Your task to perform on an android device: change notification settings in the gmail app Image 0: 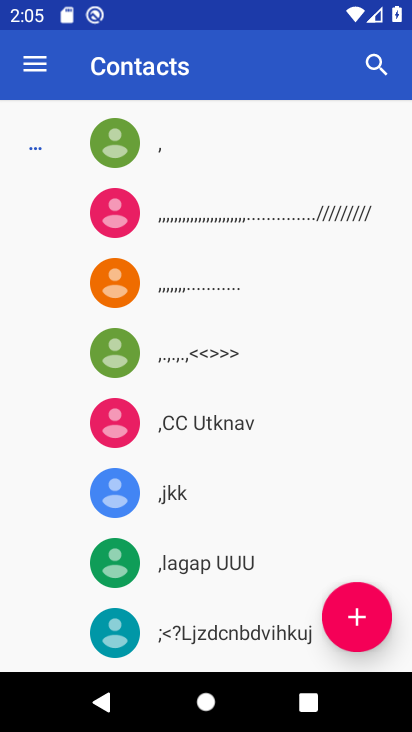
Step 0: press home button
Your task to perform on an android device: change notification settings in the gmail app Image 1: 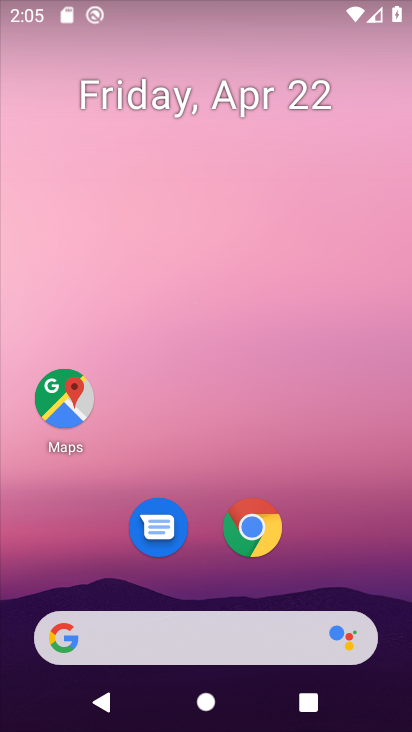
Step 1: drag from (359, 597) to (251, 35)
Your task to perform on an android device: change notification settings in the gmail app Image 2: 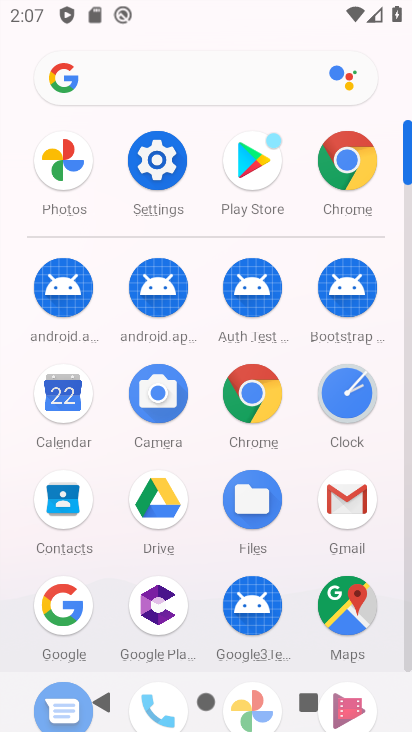
Step 2: click (352, 500)
Your task to perform on an android device: change notification settings in the gmail app Image 3: 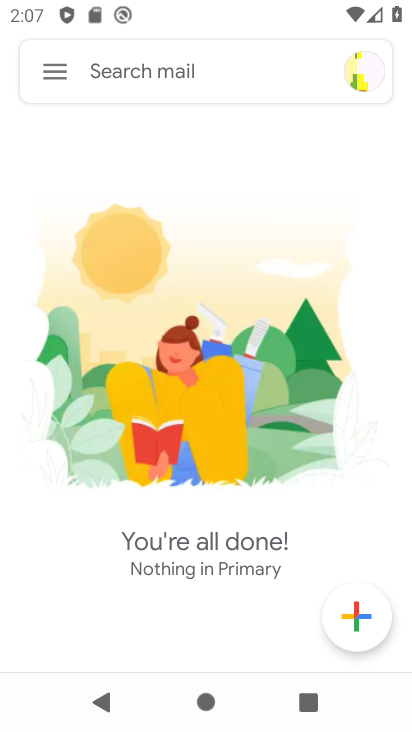
Step 3: click (49, 68)
Your task to perform on an android device: change notification settings in the gmail app Image 4: 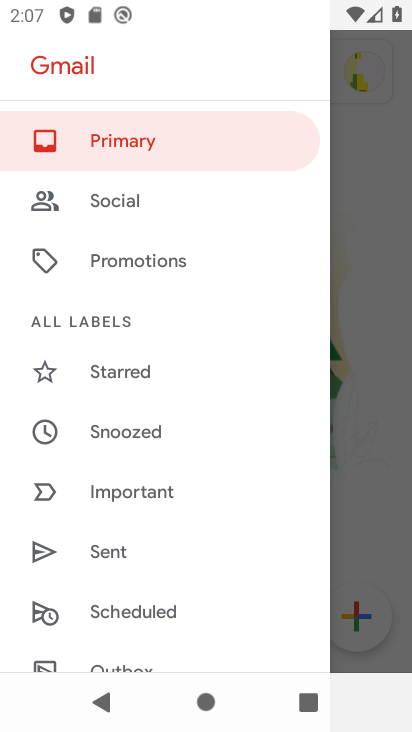
Step 4: drag from (140, 623) to (233, 147)
Your task to perform on an android device: change notification settings in the gmail app Image 5: 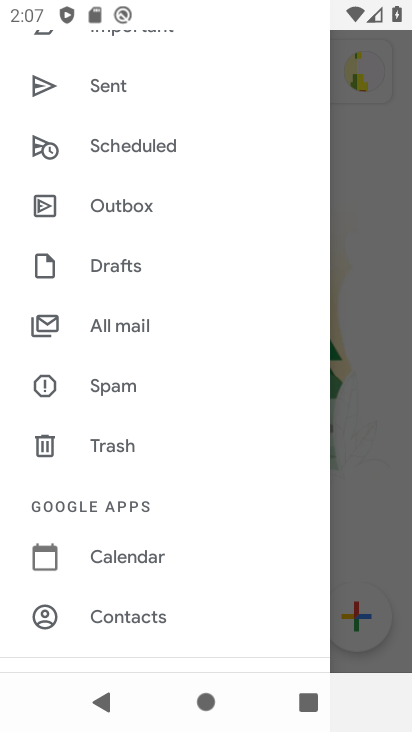
Step 5: drag from (151, 581) to (192, 139)
Your task to perform on an android device: change notification settings in the gmail app Image 6: 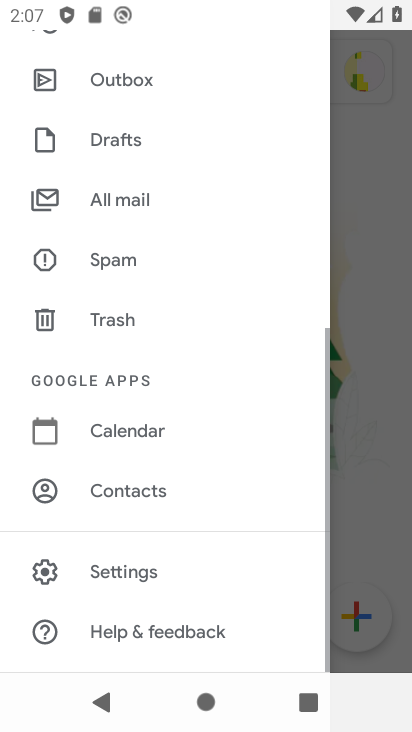
Step 6: click (135, 572)
Your task to perform on an android device: change notification settings in the gmail app Image 7: 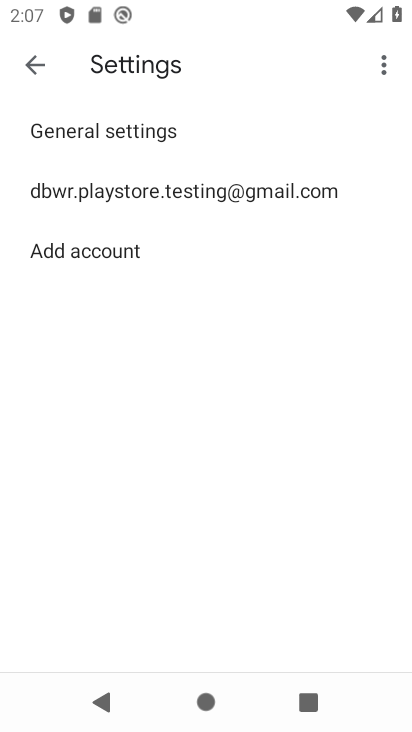
Step 7: click (220, 190)
Your task to perform on an android device: change notification settings in the gmail app Image 8: 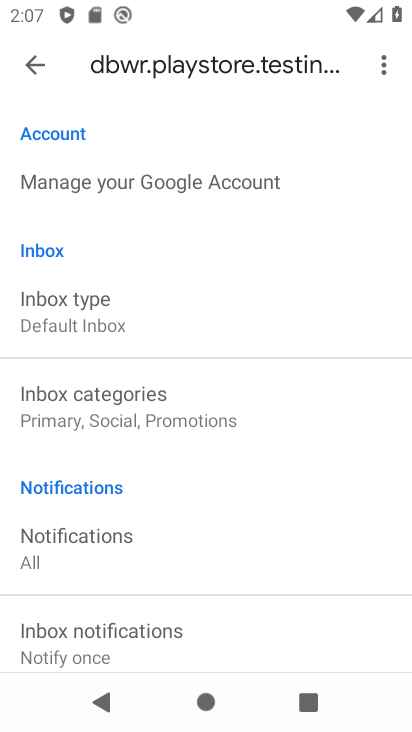
Step 8: click (116, 552)
Your task to perform on an android device: change notification settings in the gmail app Image 9: 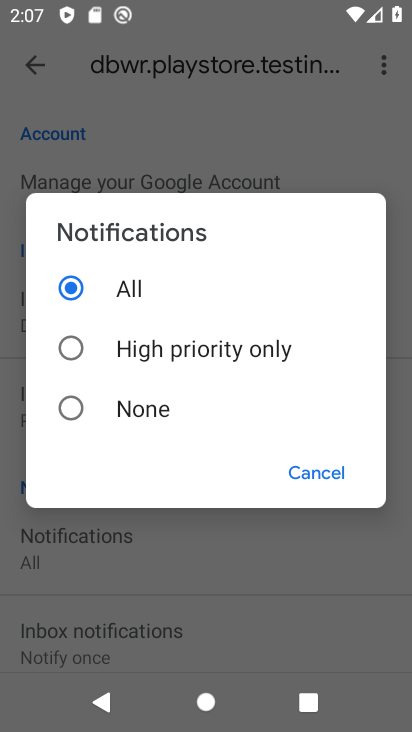
Step 9: click (128, 401)
Your task to perform on an android device: change notification settings in the gmail app Image 10: 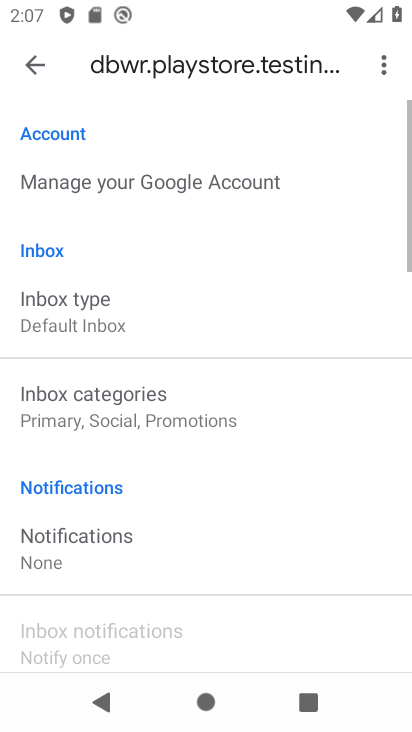
Step 10: task complete